Your task to perform on an android device: Go to Yahoo.com Image 0: 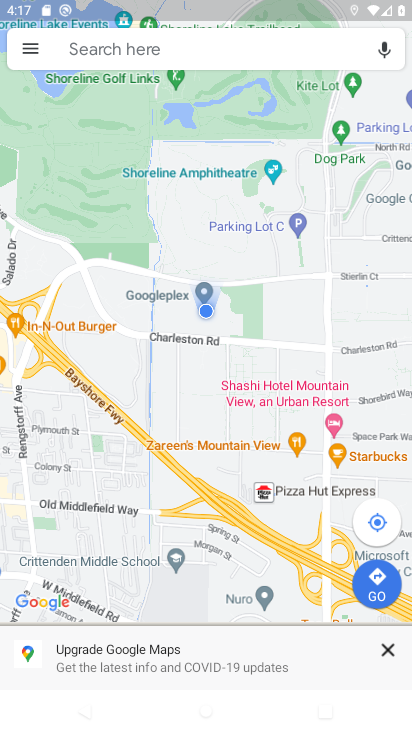
Step 0: press home button
Your task to perform on an android device: Go to Yahoo.com Image 1: 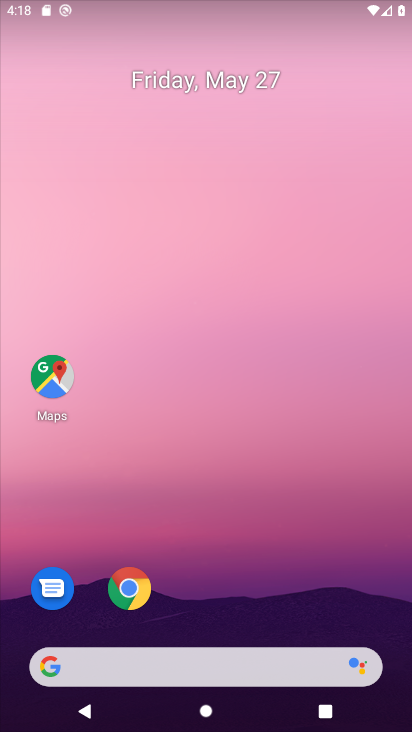
Step 1: click (136, 594)
Your task to perform on an android device: Go to Yahoo.com Image 2: 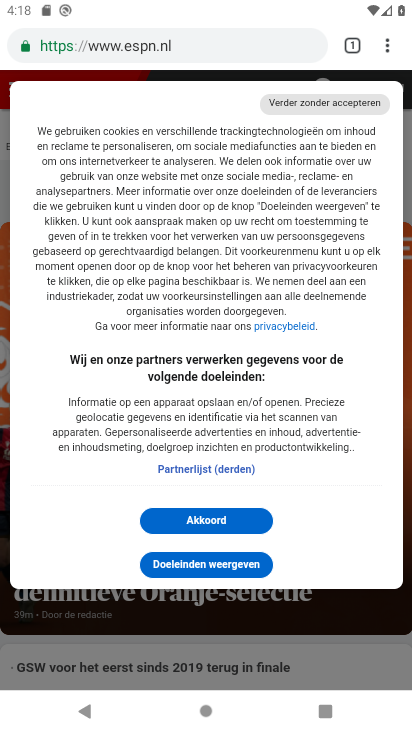
Step 2: click (351, 44)
Your task to perform on an android device: Go to Yahoo.com Image 3: 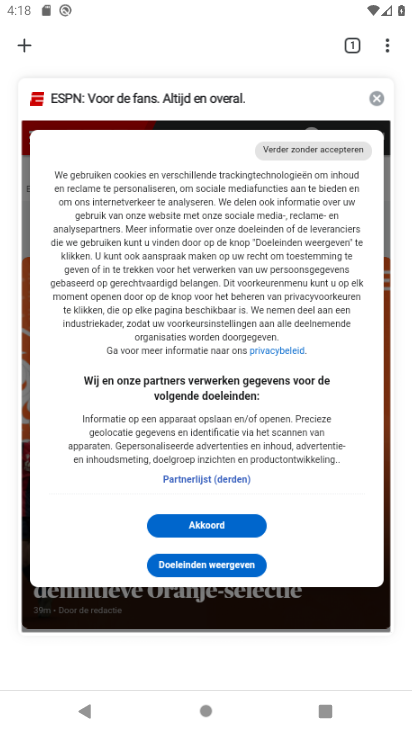
Step 3: click (371, 98)
Your task to perform on an android device: Go to Yahoo.com Image 4: 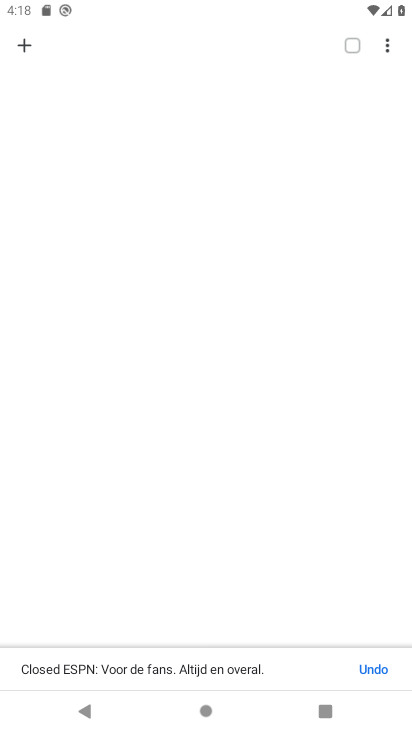
Step 4: click (23, 42)
Your task to perform on an android device: Go to Yahoo.com Image 5: 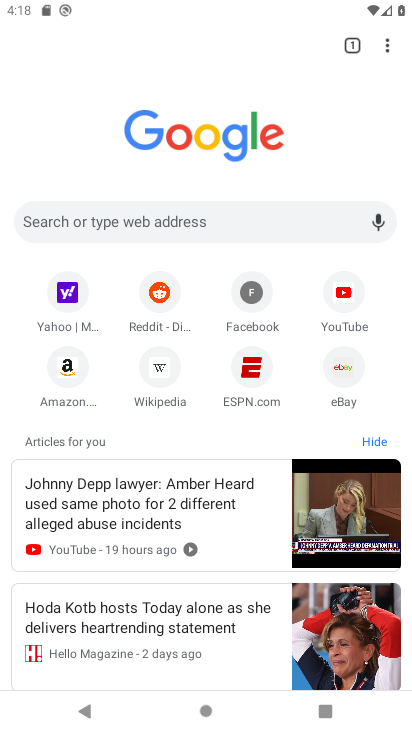
Step 5: click (49, 313)
Your task to perform on an android device: Go to Yahoo.com Image 6: 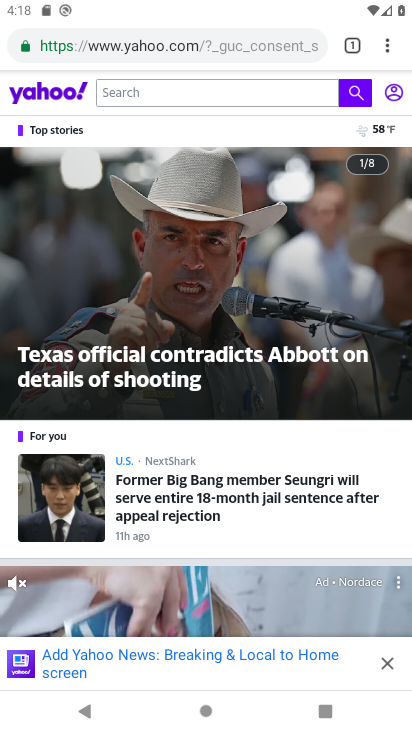
Step 6: task complete